Your task to perform on an android device: Is it going to rain tomorrow? Image 0: 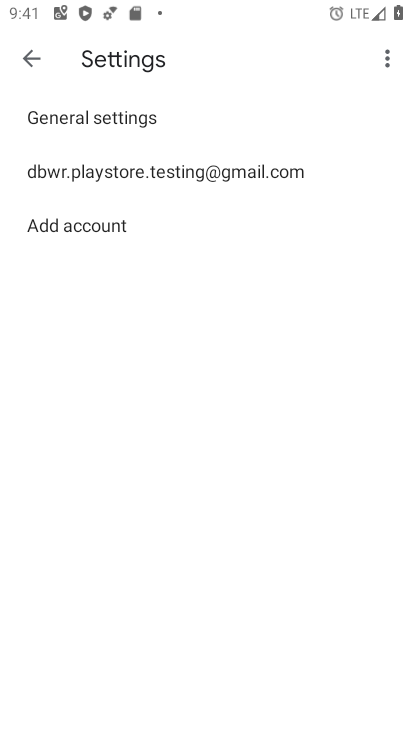
Step 0: press home button
Your task to perform on an android device: Is it going to rain tomorrow? Image 1: 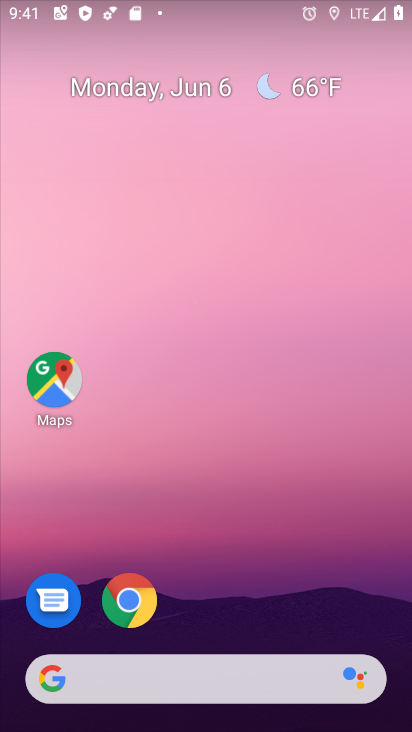
Step 1: click (101, 675)
Your task to perform on an android device: Is it going to rain tomorrow? Image 2: 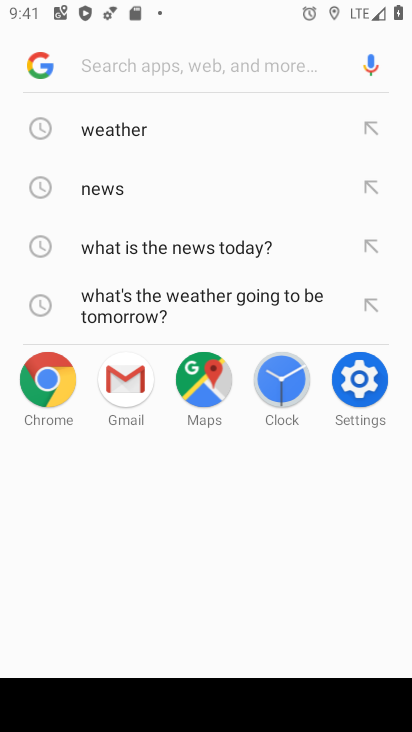
Step 2: click (158, 121)
Your task to perform on an android device: Is it going to rain tomorrow? Image 3: 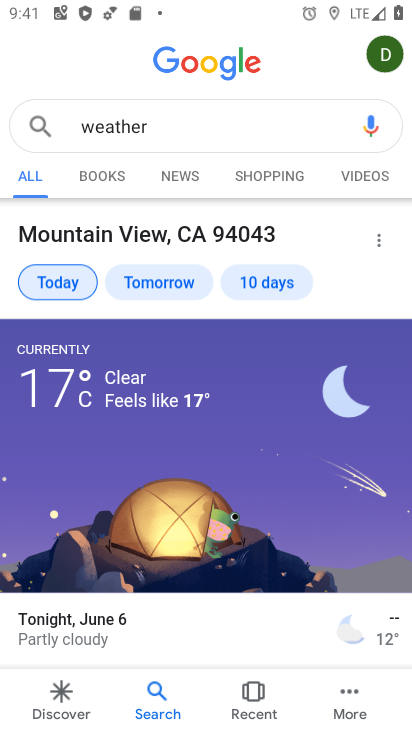
Step 3: click (174, 291)
Your task to perform on an android device: Is it going to rain tomorrow? Image 4: 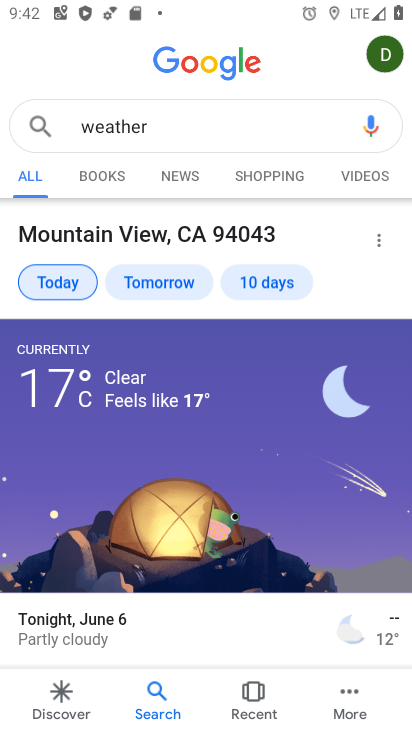
Step 4: click (139, 274)
Your task to perform on an android device: Is it going to rain tomorrow? Image 5: 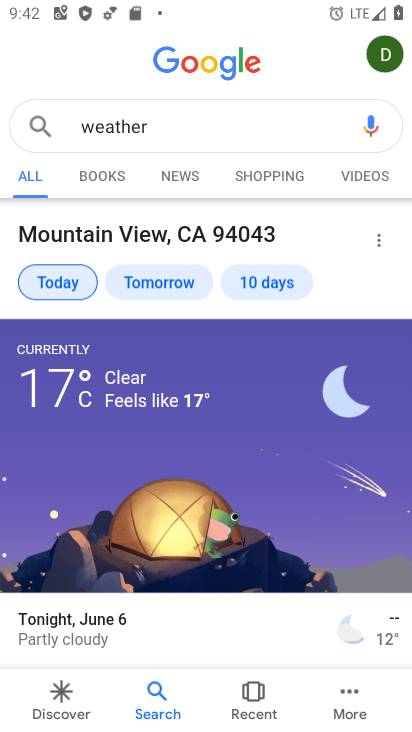
Step 5: click (172, 283)
Your task to perform on an android device: Is it going to rain tomorrow? Image 6: 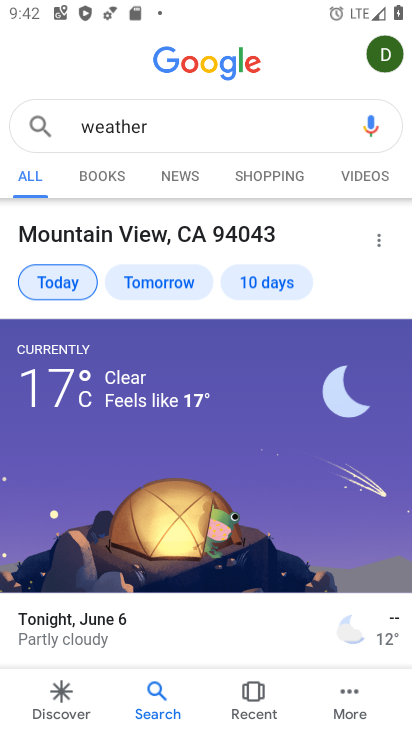
Step 6: task complete